Your task to perform on an android device: toggle sleep mode Image 0: 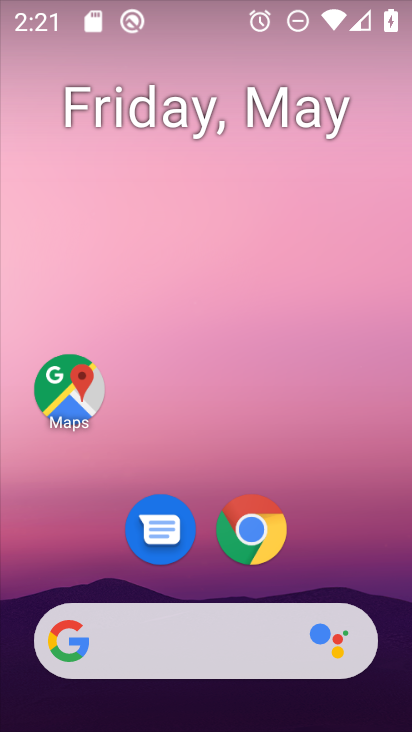
Step 0: drag from (377, 604) to (320, 270)
Your task to perform on an android device: toggle sleep mode Image 1: 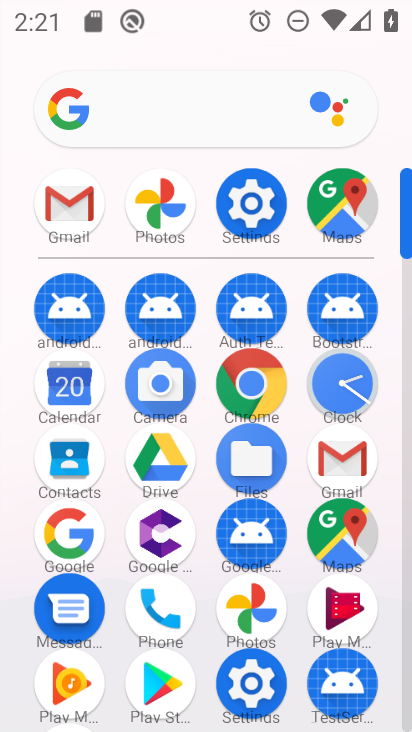
Step 1: click (255, 191)
Your task to perform on an android device: toggle sleep mode Image 2: 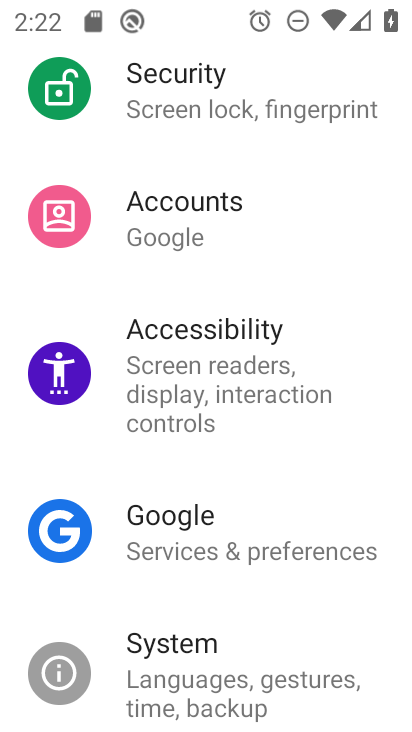
Step 2: drag from (360, 547) to (342, 377)
Your task to perform on an android device: toggle sleep mode Image 3: 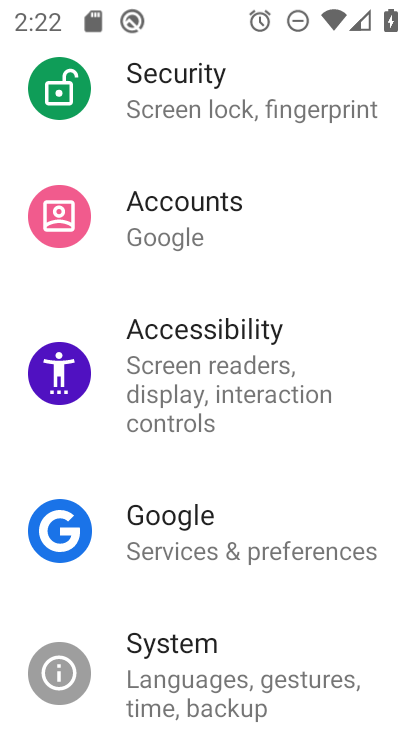
Step 3: drag from (346, 195) to (358, 571)
Your task to perform on an android device: toggle sleep mode Image 4: 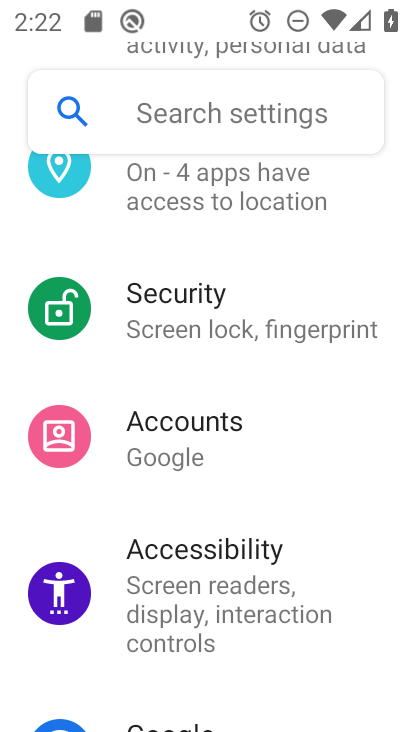
Step 4: drag from (345, 194) to (377, 698)
Your task to perform on an android device: toggle sleep mode Image 5: 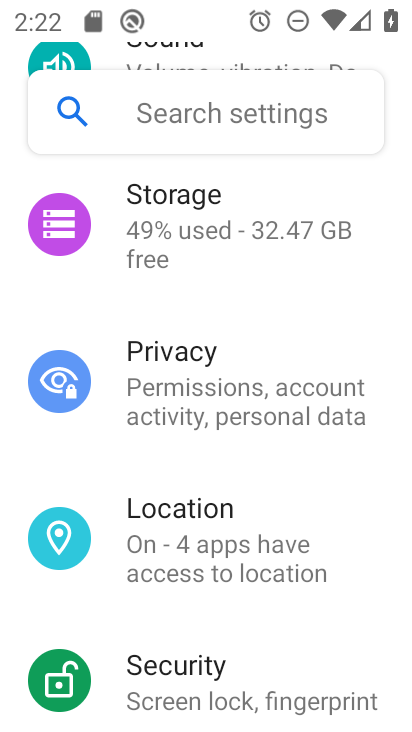
Step 5: drag from (336, 200) to (376, 716)
Your task to perform on an android device: toggle sleep mode Image 6: 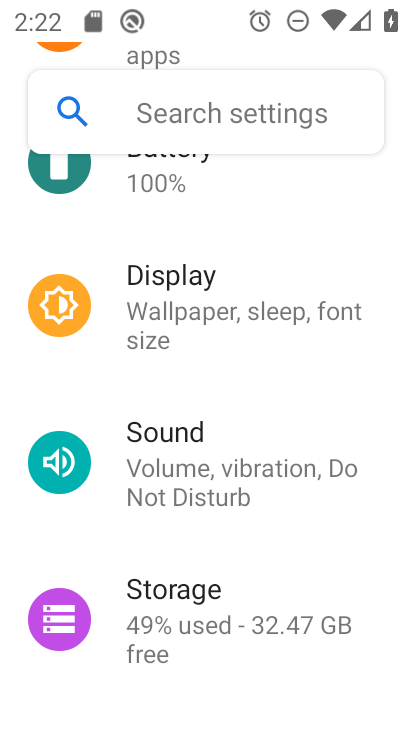
Step 6: click (375, 683)
Your task to perform on an android device: toggle sleep mode Image 7: 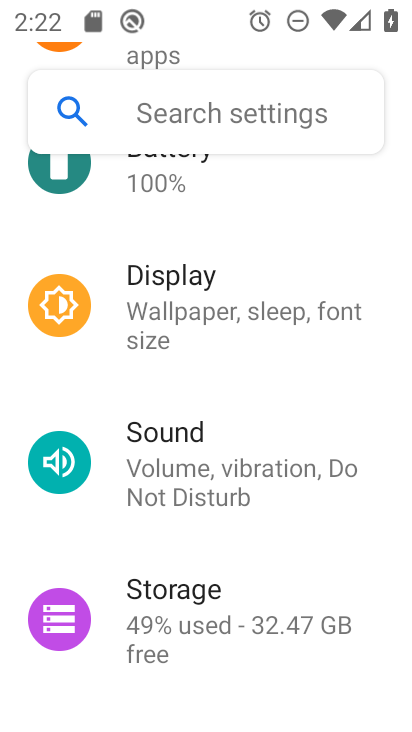
Step 7: drag from (351, 218) to (382, 730)
Your task to perform on an android device: toggle sleep mode Image 8: 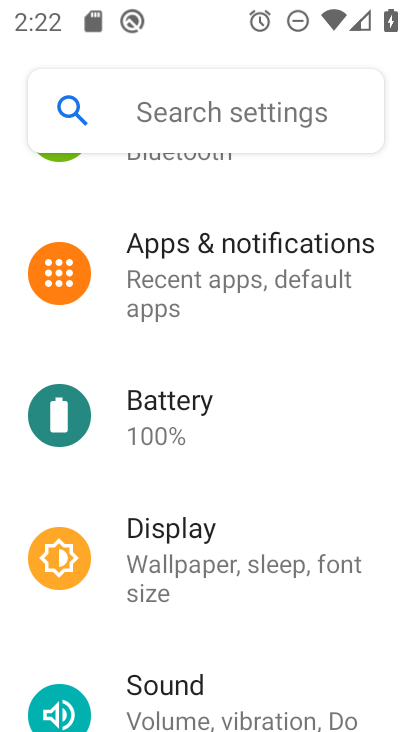
Step 8: drag from (362, 203) to (397, 708)
Your task to perform on an android device: toggle sleep mode Image 9: 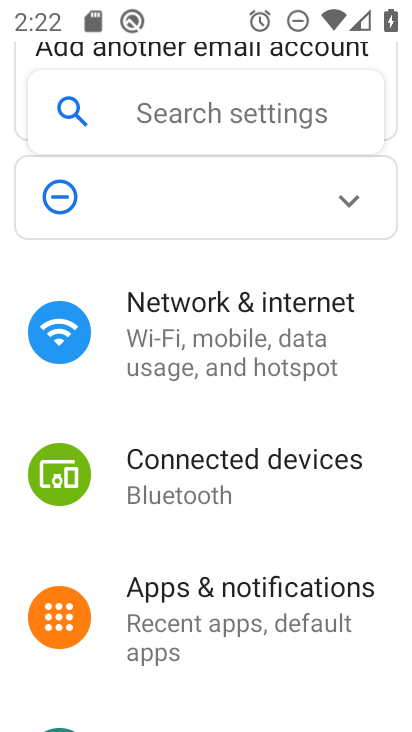
Step 9: drag from (278, 681) to (290, 391)
Your task to perform on an android device: toggle sleep mode Image 10: 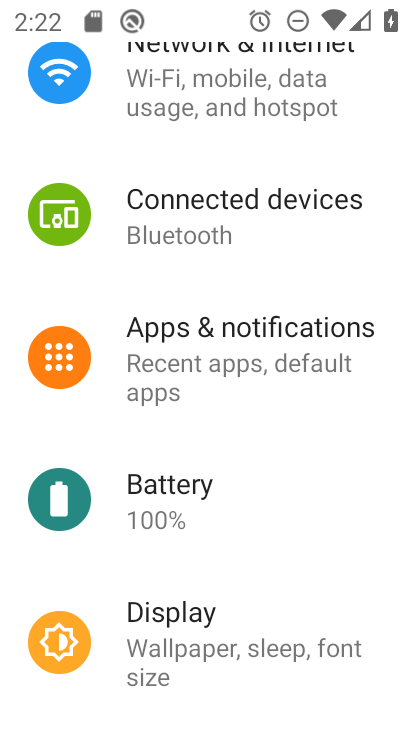
Step 10: drag from (307, 622) to (302, 366)
Your task to perform on an android device: toggle sleep mode Image 11: 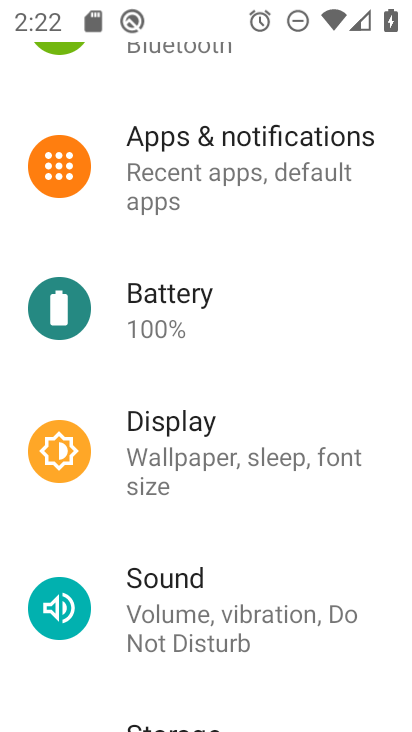
Step 11: click (181, 436)
Your task to perform on an android device: toggle sleep mode Image 12: 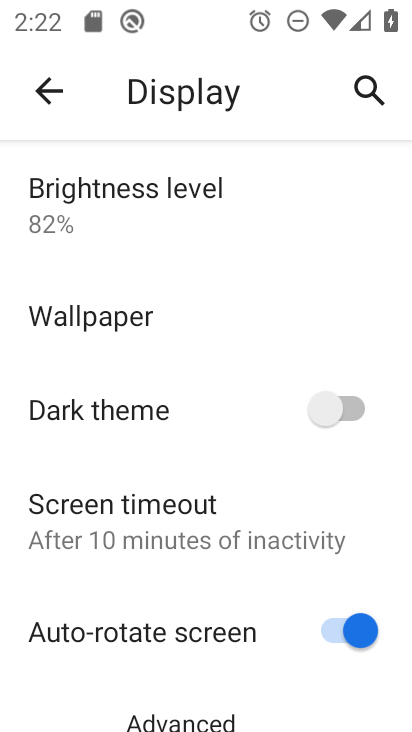
Step 12: drag from (276, 679) to (255, 359)
Your task to perform on an android device: toggle sleep mode Image 13: 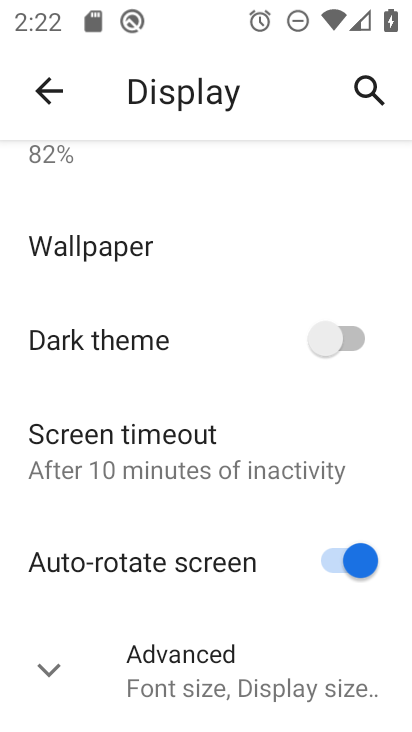
Step 13: click (148, 443)
Your task to perform on an android device: toggle sleep mode Image 14: 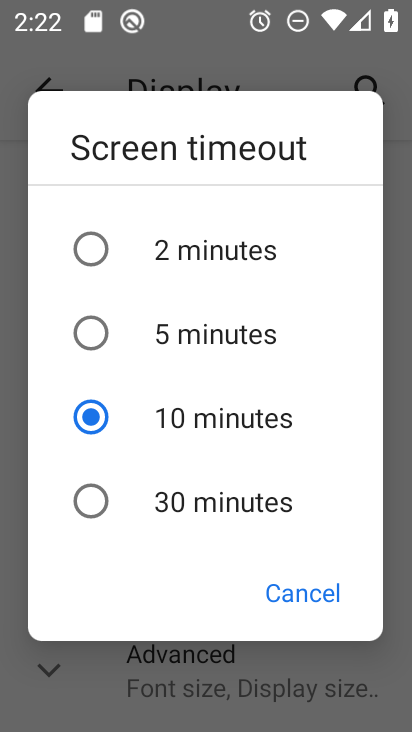
Step 14: click (91, 335)
Your task to perform on an android device: toggle sleep mode Image 15: 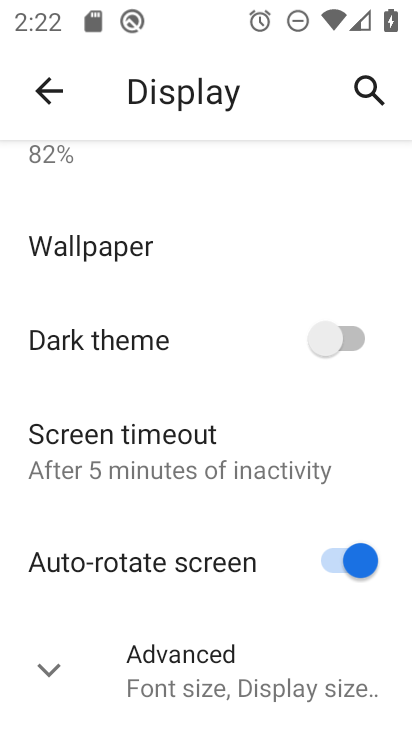
Step 15: task complete